Your task to perform on an android device: delete browsing data in the chrome app Image 0: 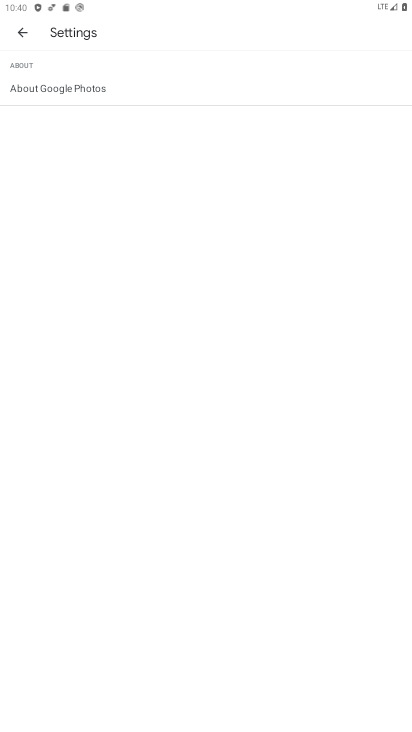
Step 0: press home button
Your task to perform on an android device: delete browsing data in the chrome app Image 1: 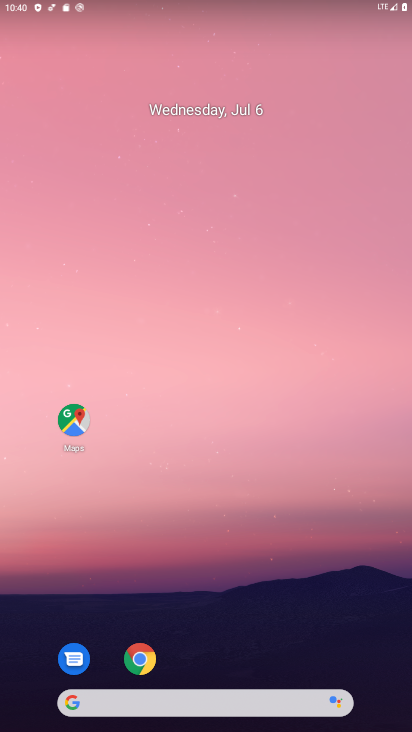
Step 1: click (148, 625)
Your task to perform on an android device: delete browsing data in the chrome app Image 2: 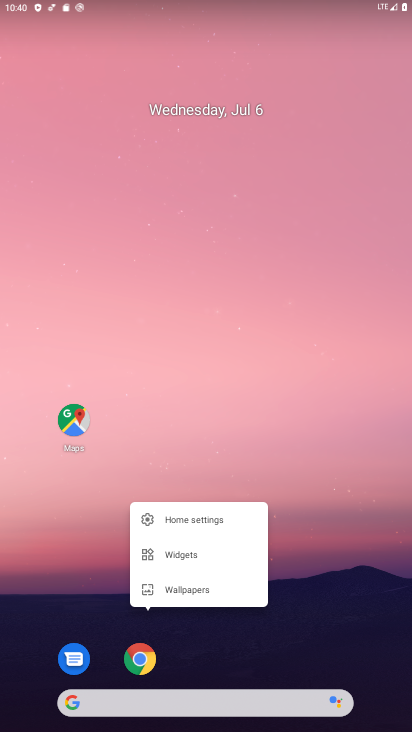
Step 2: click (138, 646)
Your task to perform on an android device: delete browsing data in the chrome app Image 3: 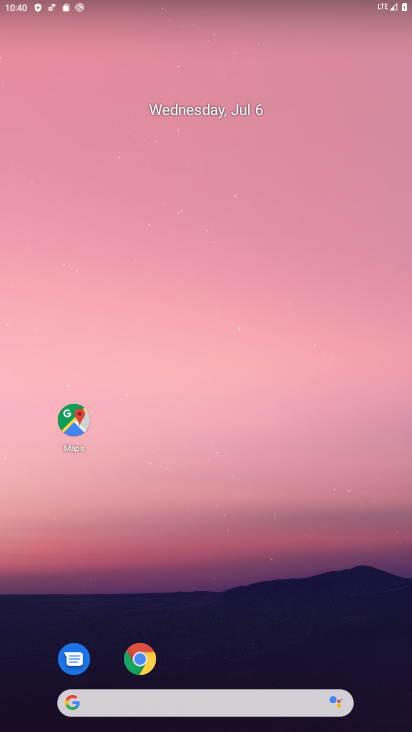
Step 3: click (146, 660)
Your task to perform on an android device: delete browsing data in the chrome app Image 4: 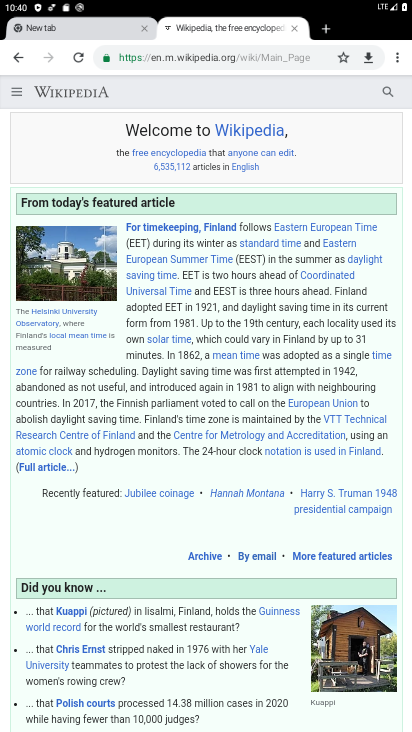
Step 4: click (390, 49)
Your task to perform on an android device: delete browsing data in the chrome app Image 5: 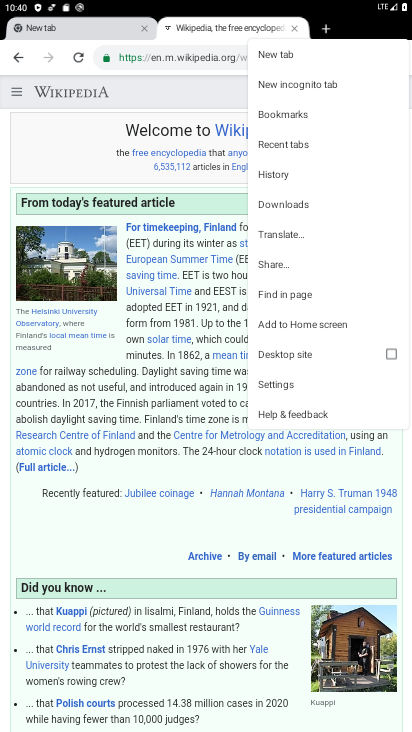
Step 5: drag from (295, 140) to (271, 171)
Your task to perform on an android device: delete browsing data in the chrome app Image 6: 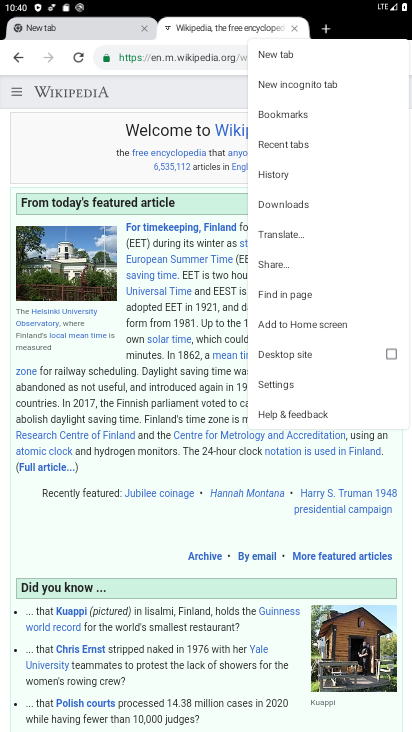
Step 6: click (271, 171)
Your task to perform on an android device: delete browsing data in the chrome app Image 7: 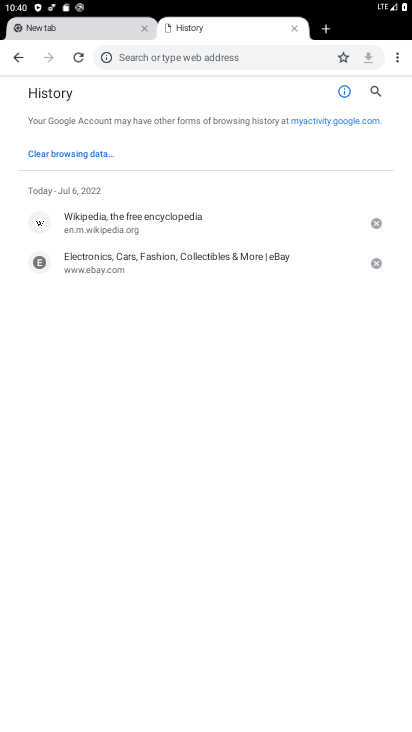
Step 7: click (80, 153)
Your task to perform on an android device: delete browsing data in the chrome app Image 8: 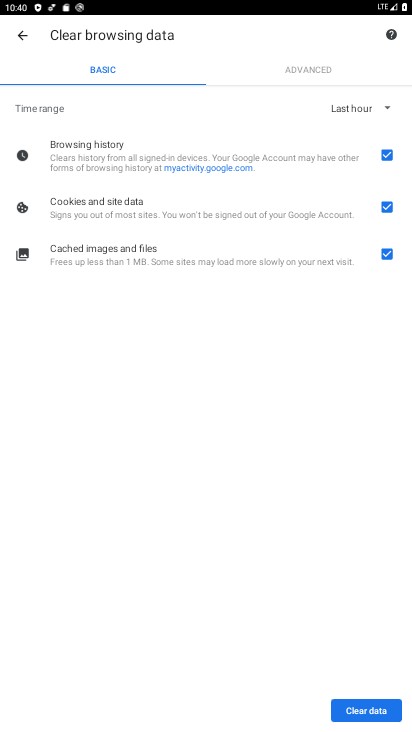
Step 8: click (362, 705)
Your task to perform on an android device: delete browsing data in the chrome app Image 9: 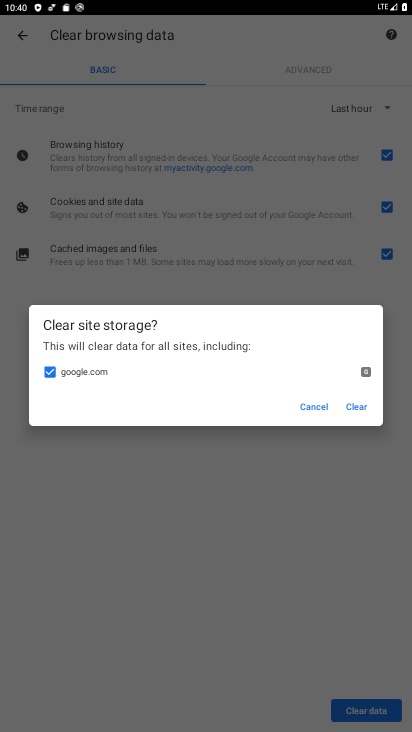
Step 9: click (350, 400)
Your task to perform on an android device: delete browsing data in the chrome app Image 10: 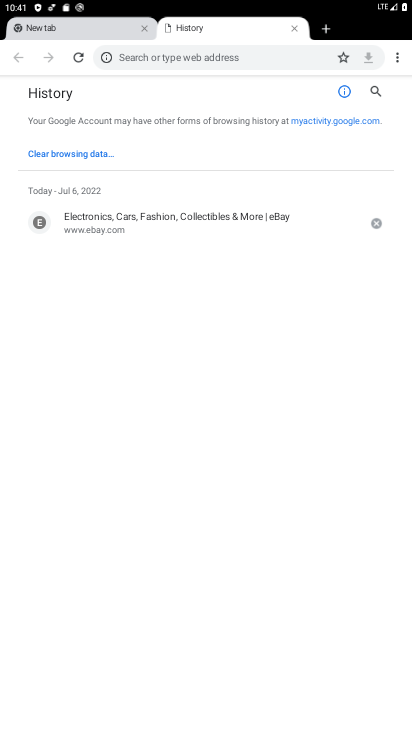
Step 10: task complete